Your task to perform on an android device: see tabs open on other devices in the chrome app Image 0: 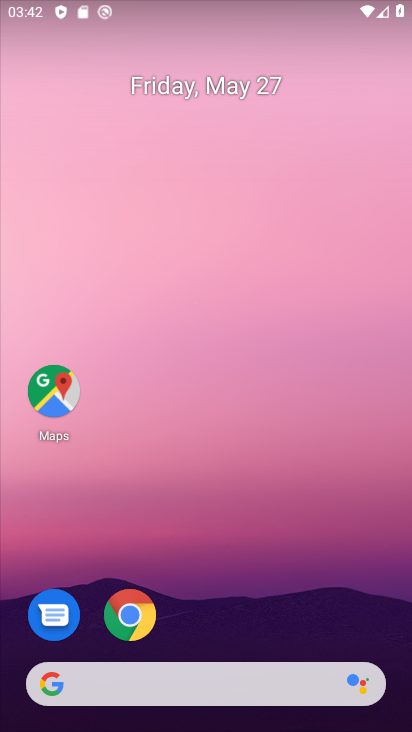
Step 0: click (122, 620)
Your task to perform on an android device: see tabs open on other devices in the chrome app Image 1: 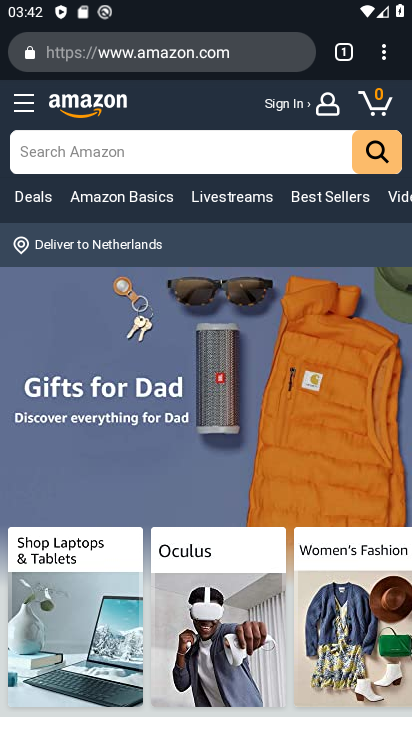
Step 1: click (386, 55)
Your task to perform on an android device: see tabs open on other devices in the chrome app Image 2: 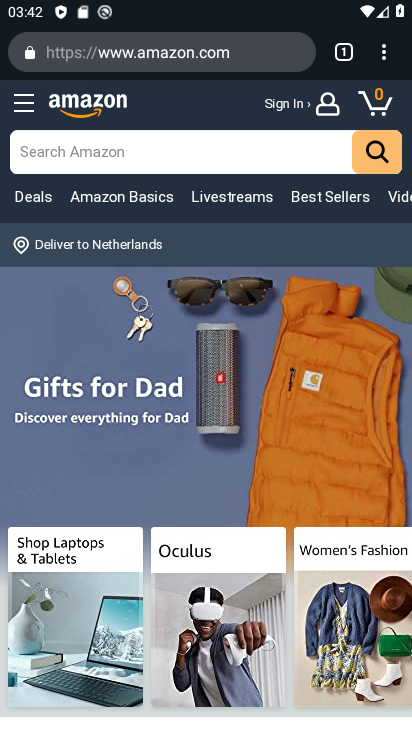
Step 2: click (382, 58)
Your task to perform on an android device: see tabs open on other devices in the chrome app Image 3: 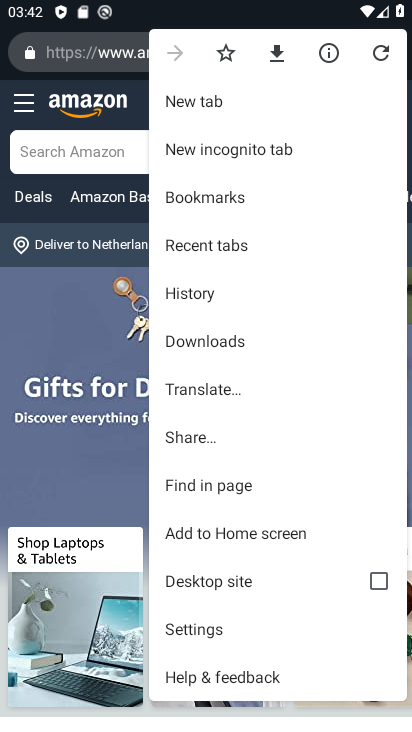
Step 3: click (244, 245)
Your task to perform on an android device: see tabs open on other devices in the chrome app Image 4: 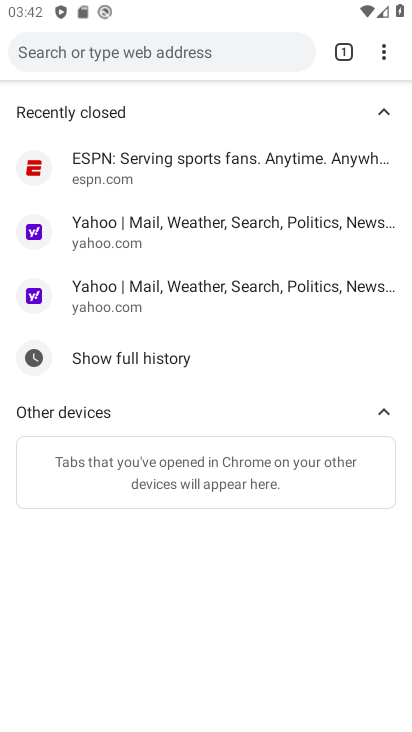
Step 4: click (67, 416)
Your task to perform on an android device: see tabs open on other devices in the chrome app Image 5: 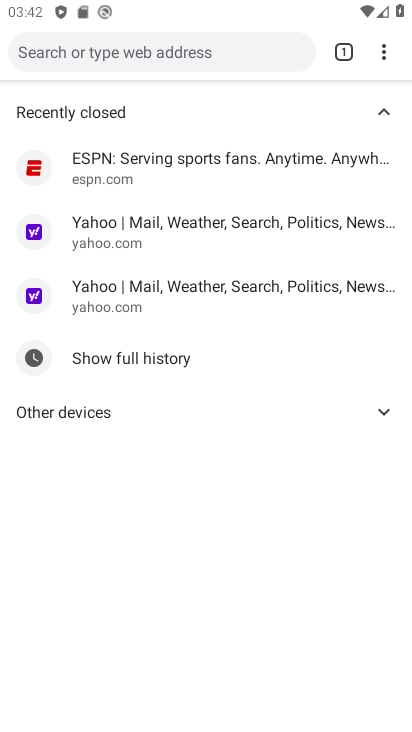
Step 5: click (69, 416)
Your task to perform on an android device: see tabs open on other devices in the chrome app Image 6: 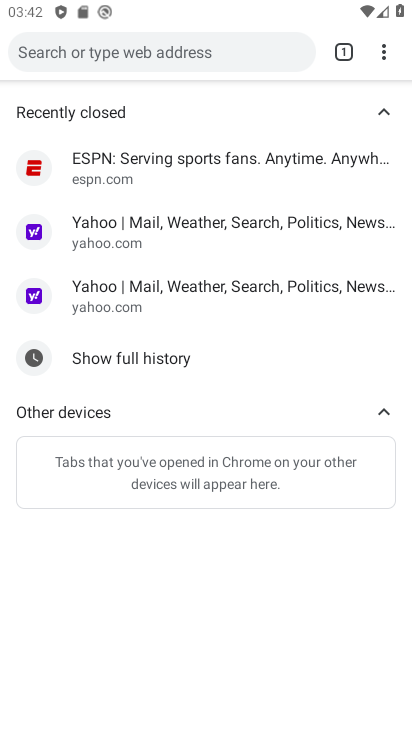
Step 6: task complete